Your task to perform on an android device: see tabs open on other devices in the chrome app Image 0: 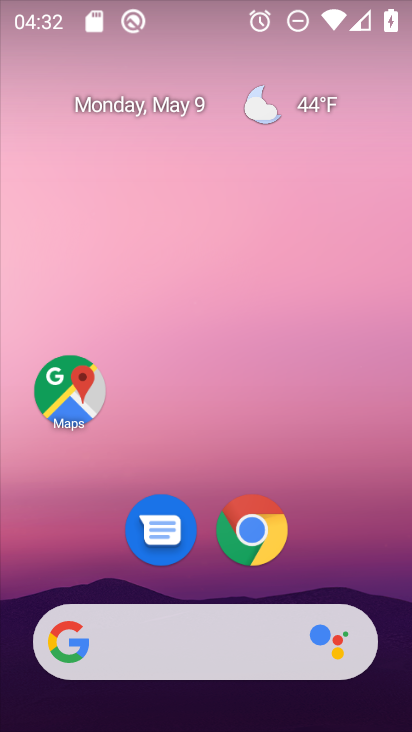
Step 0: press home button
Your task to perform on an android device: see tabs open on other devices in the chrome app Image 1: 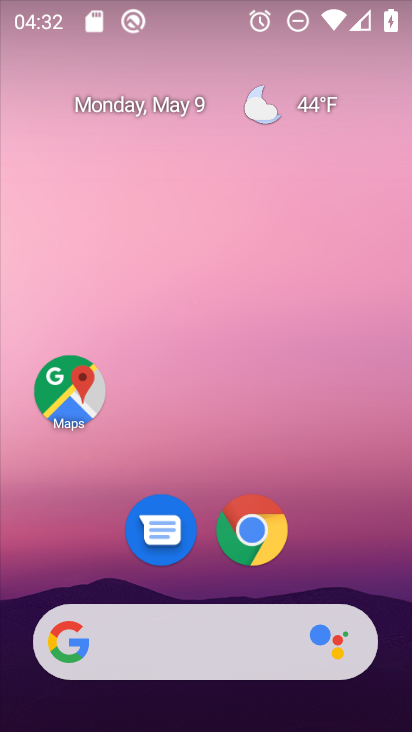
Step 1: press home button
Your task to perform on an android device: see tabs open on other devices in the chrome app Image 2: 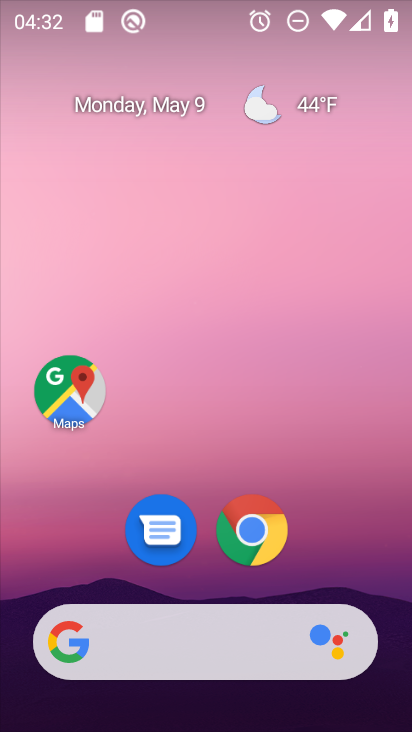
Step 2: click (250, 525)
Your task to perform on an android device: see tabs open on other devices in the chrome app Image 3: 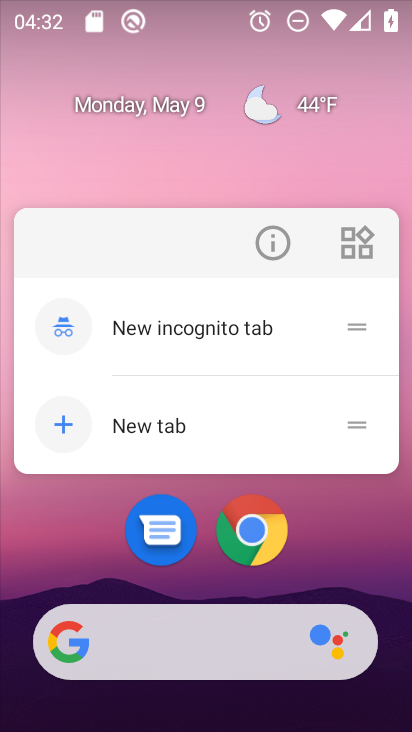
Step 3: click (244, 527)
Your task to perform on an android device: see tabs open on other devices in the chrome app Image 4: 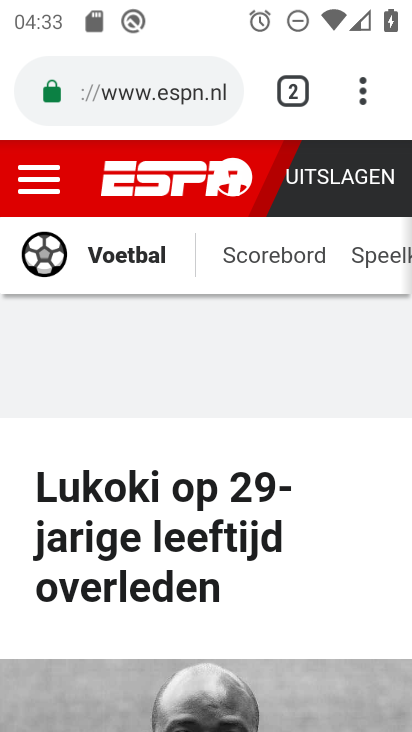
Step 4: click (359, 83)
Your task to perform on an android device: see tabs open on other devices in the chrome app Image 5: 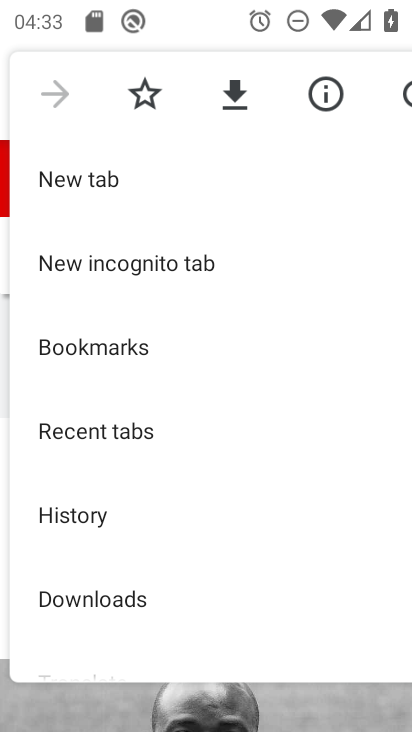
Step 5: click (158, 428)
Your task to perform on an android device: see tabs open on other devices in the chrome app Image 6: 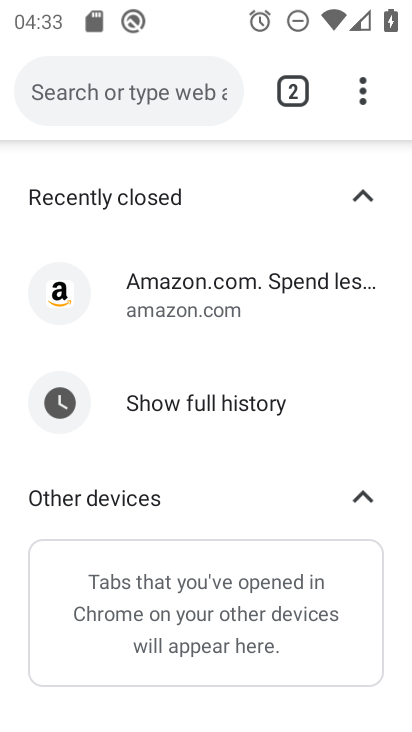
Step 6: task complete